Your task to perform on an android device: open wifi settings Image 0: 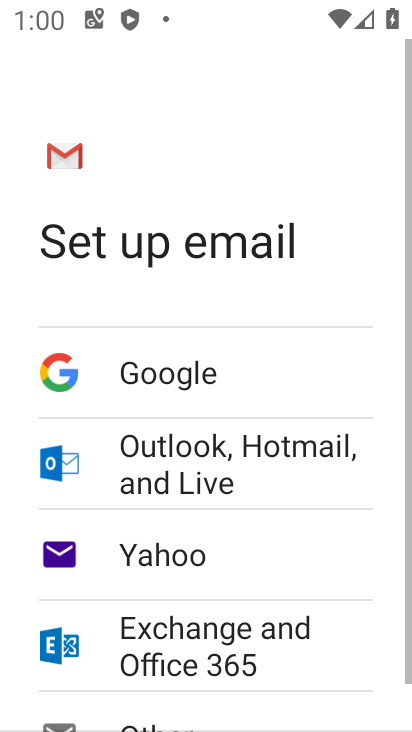
Step 0: press home button
Your task to perform on an android device: open wifi settings Image 1: 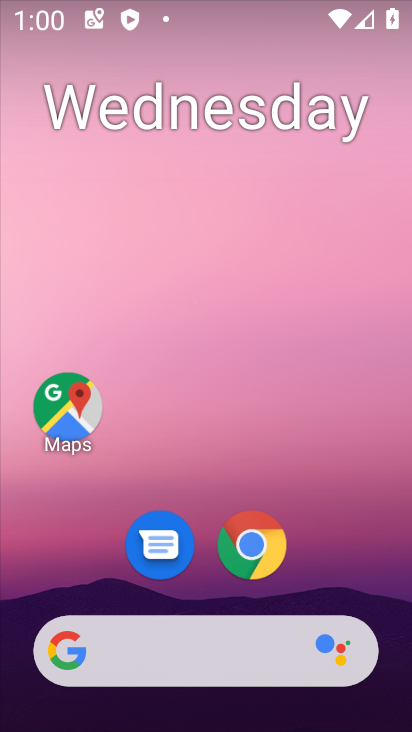
Step 1: drag from (245, 607) to (242, 171)
Your task to perform on an android device: open wifi settings Image 2: 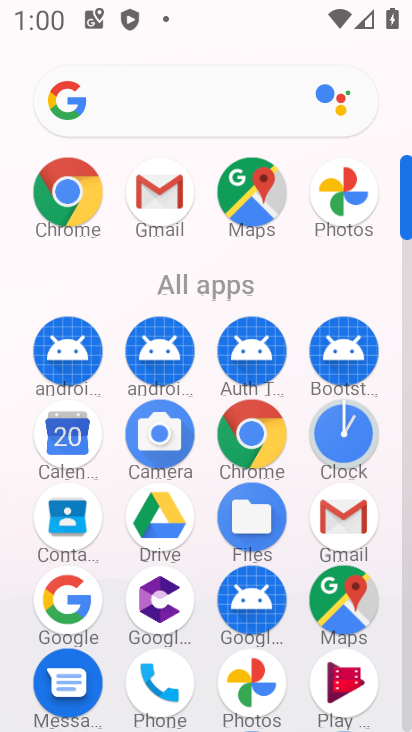
Step 2: drag from (204, 648) to (195, 396)
Your task to perform on an android device: open wifi settings Image 3: 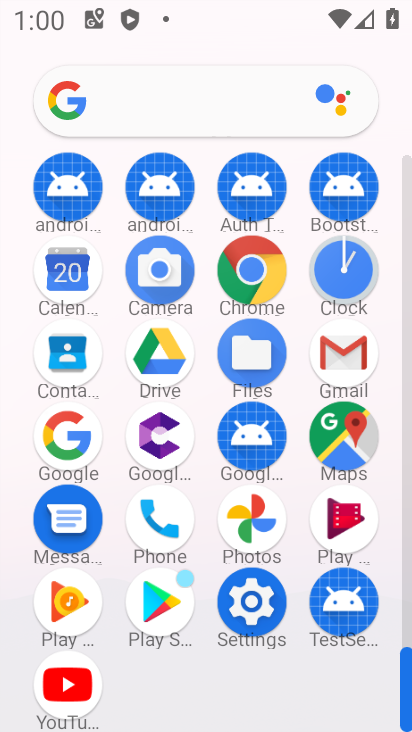
Step 3: click (249, 602)
Your task to perform on an android device: open wifi settings Image 4: 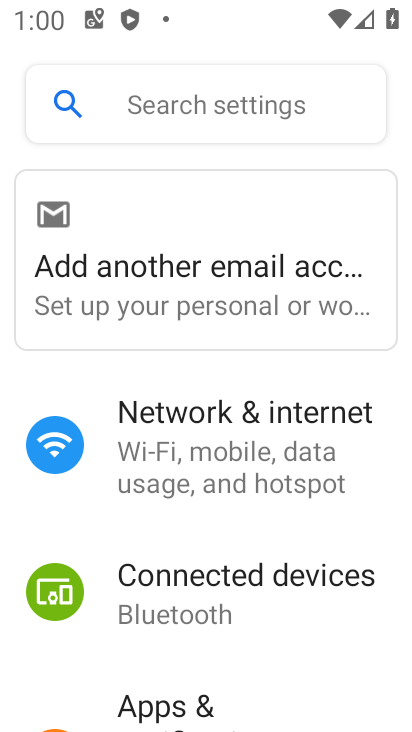
Step 4: click (200, 464)
Your task to perform on an android device: open wifi settings Image 5: 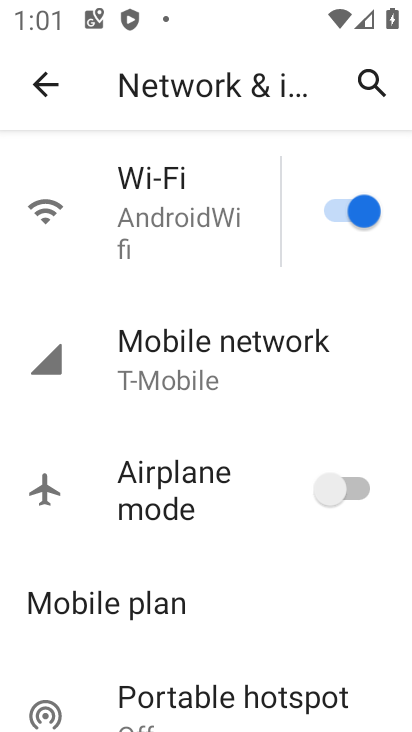
Step 5: click (135, 197)
Your task to perform on an android device: open wifi settings Image 6: 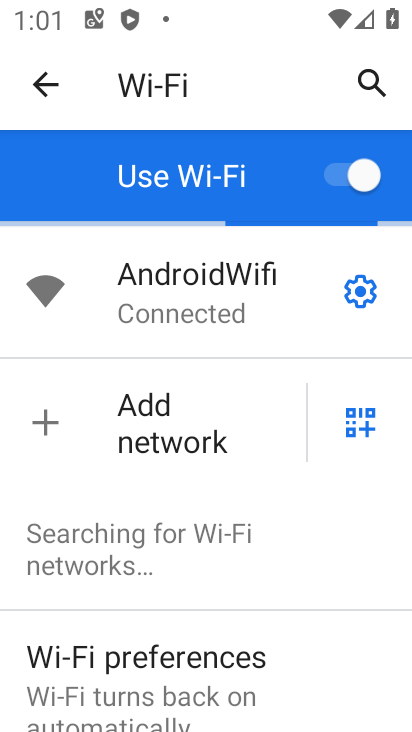
Step 6: task complete